Your task to perform on an android device: Show me the alarms in the clock app Image 0: 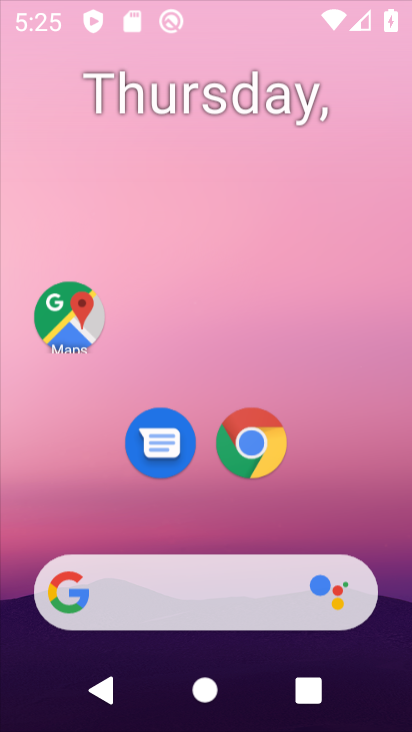
Step 0: drag from (313, 262) to (320, 141)
Your task to perform on an android device: Show me the alarms in the clock app Image 1: 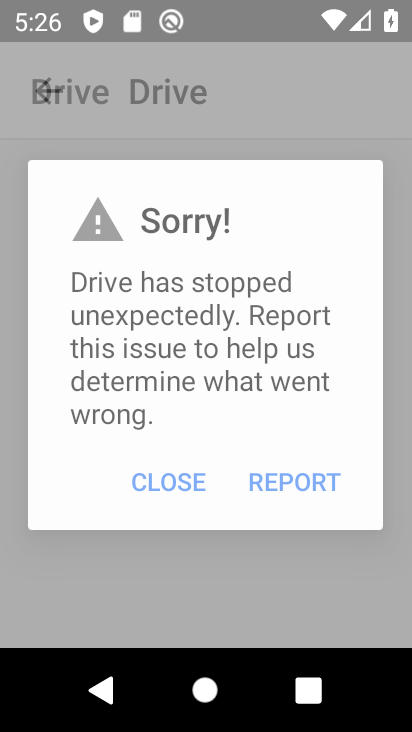
Step 1: press home button
Your task to perform on an android device: Show me the alarms in the clock app Image 2: 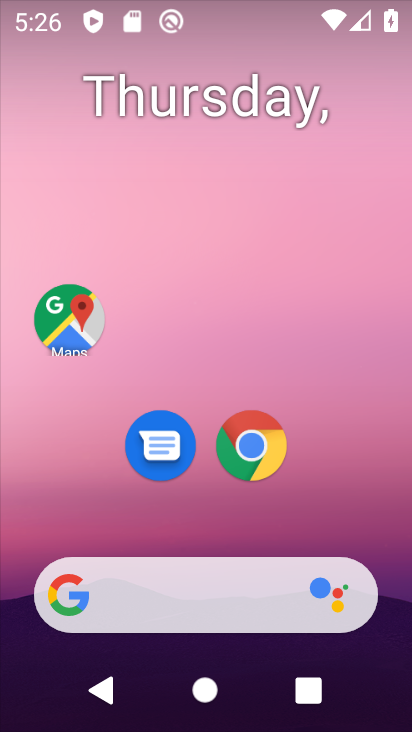
Step 2: drag from (313, 507) to (360, 92)
Your task to perform on an android device: Show me the alarms in the clock app Image 3: 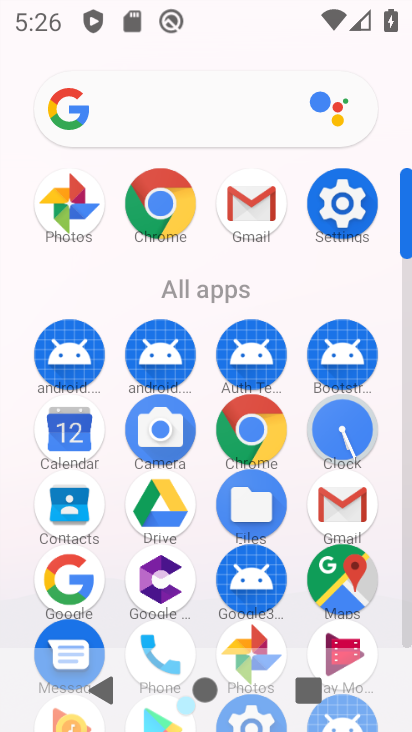
Step 3: click (339, 421)
Your task to perform on an android device: Show me the alarms in the clock app Image 4: 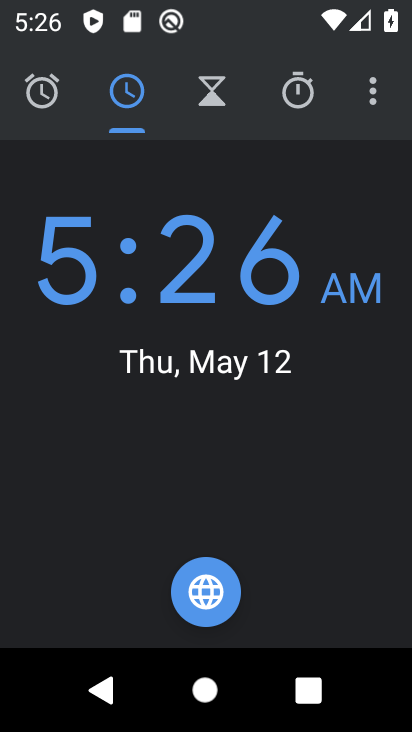
Step 4: click (43, 100)
Your task to perform on an android device: Show me the alarms in the clock app Image 5: 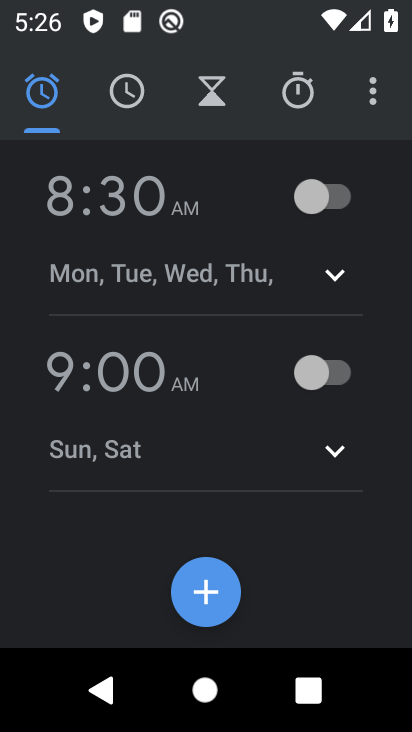
Step 5: task complete